Your task to perform on an android device: change your default location settings in chrome Image 0: 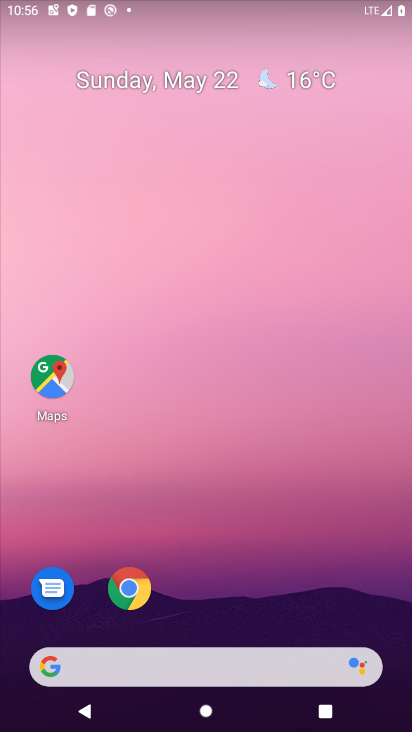
Step 0: click (132, 584)
Your task to perform on an android device: change your default location settings in chrome Image 1: 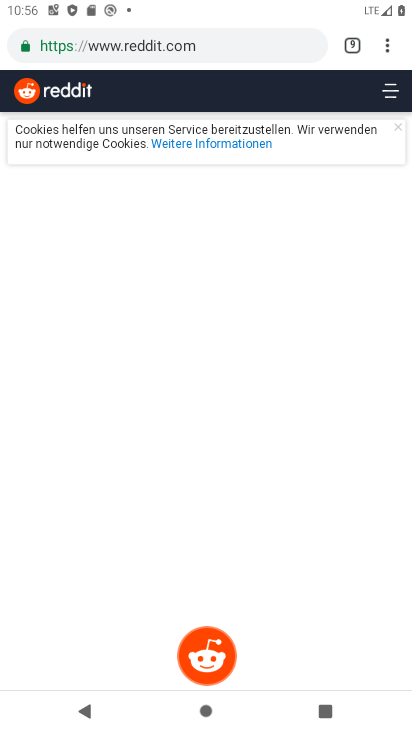
Step 1: click (389, 45)
Your task to perform on an android device: change your default location settings in chrome Image 2: 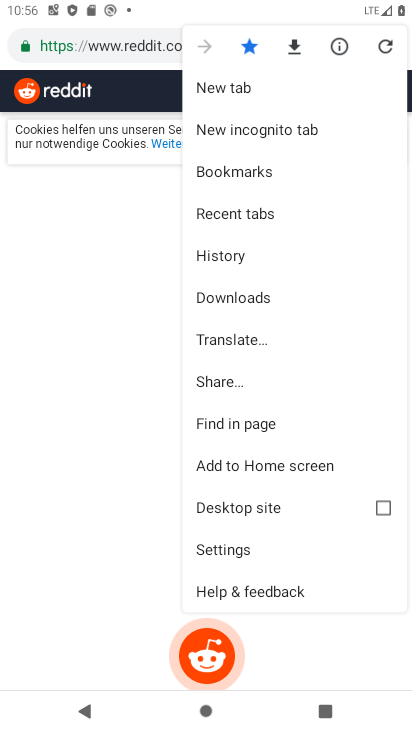
Step 2: click (228, 539)
Your task to perform on an android device: change your default location settings in chrome Image 3: 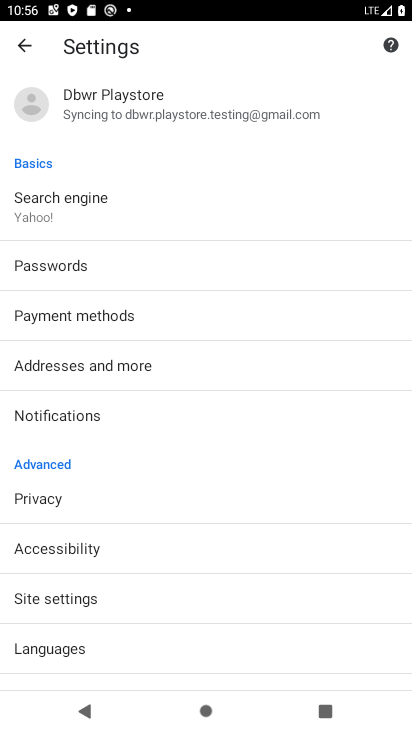
Step 3: click (70, 607)
Your task to perform on an android device: change your default location settings in chrome Image 4: 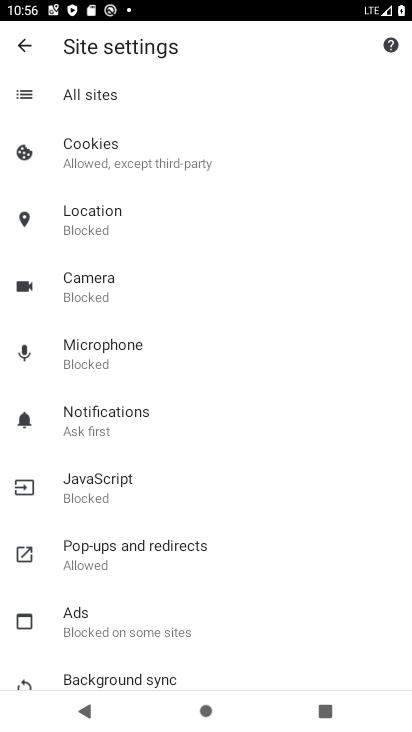
Step 4: click (117, 225)
Your task to perform on an android device: change your default location settings in chrome Image 5: 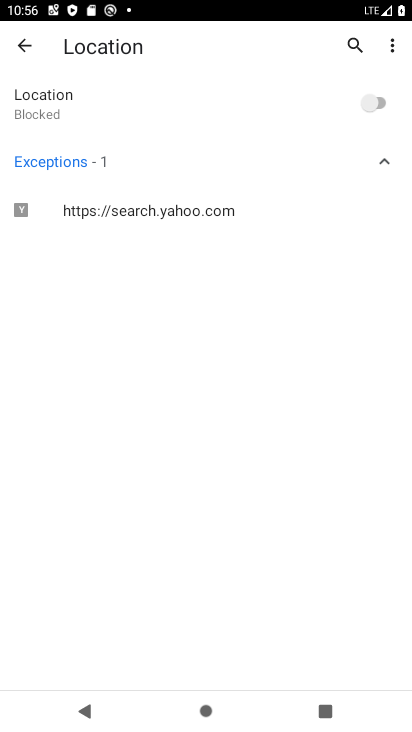
Step 5: click (382, 102)
Your task to perform on an android device: change your default location settings in chrome Image 6: 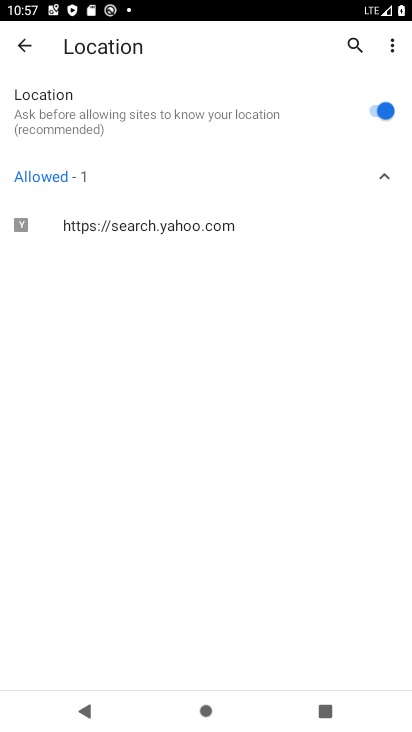
Step 6: task complete